Your task to perform on an android device: Go to Wikipedia Image 0: 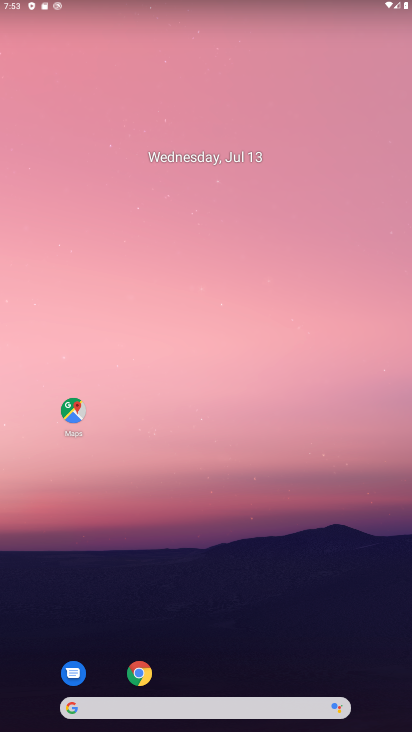
Step 0: drag from (296, 653) to (178, 44)
Your task to perform on an android device: Go to Wikipedia Image 1: 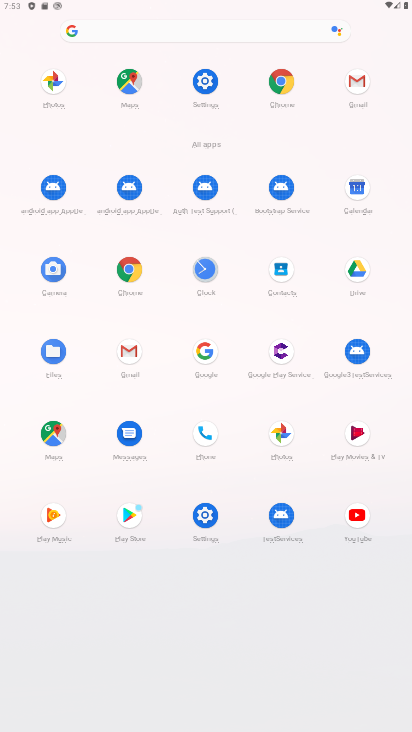
Step 1: click (282, 79)
Your task to perform on an android device: Go to Wikipedia Image 2: 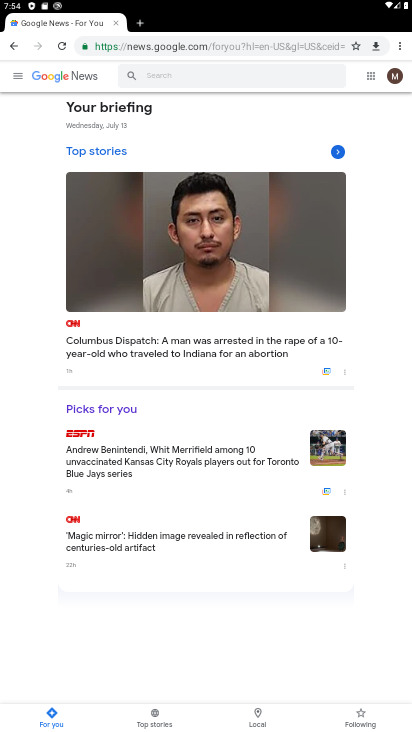
Step 2: click (227, 44)
Your task to perform on an android device: Go to Wikipedia Image 3: 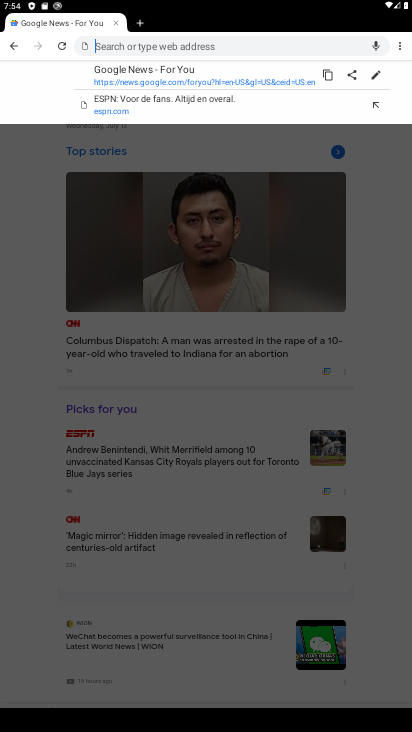
Step 3: type "wikipedia"
Your task to perform on an android device: Go to Wikipedia Image 4: 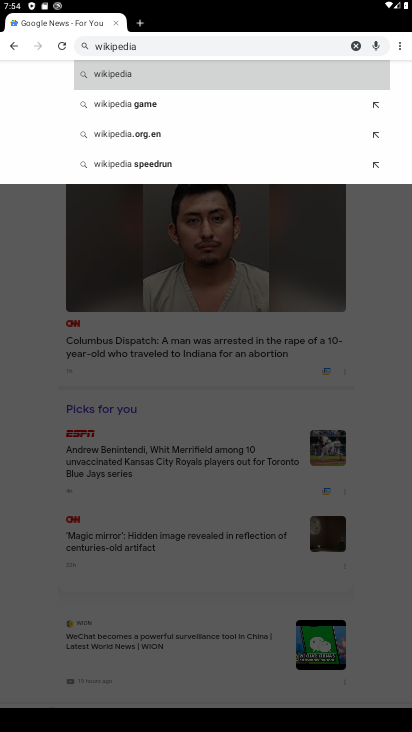
Step 4: click (114, 76)
Your task to perform on an android device: Go to Wikipedia Image 5: 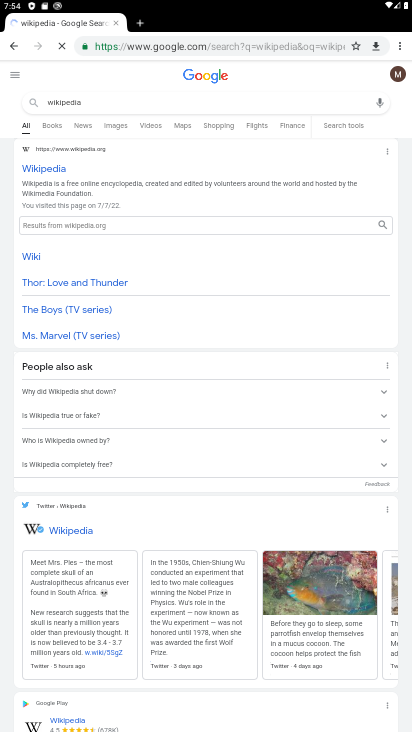
Step 5: click (50, 171)
Your task to perform on an android device: Go to Wikipedia Image 6: 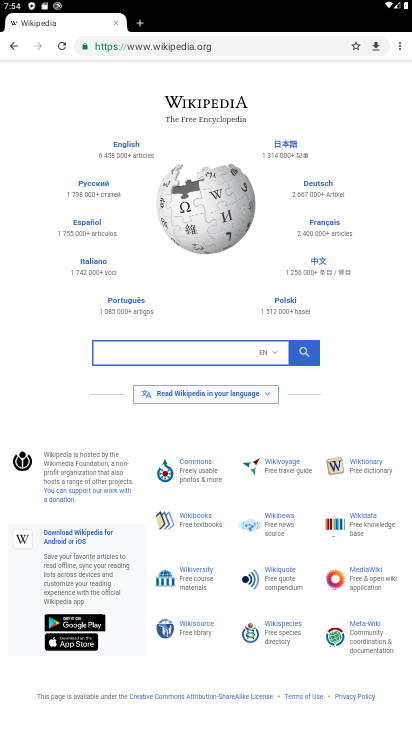
Step 6: task complete